Your task to perform on an android device: toggle priority inbox in the gmail app Image 0: 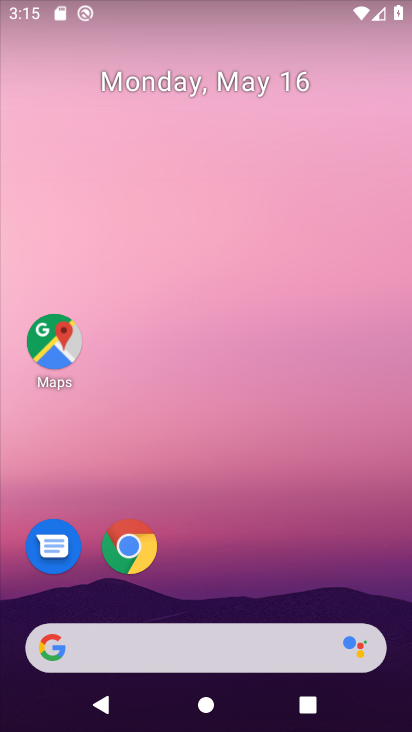
Step 0: drag from (364, 588) to (394, 202)
Your task to perform on an android device: toggle priority inbox in the gmail app Image 1: 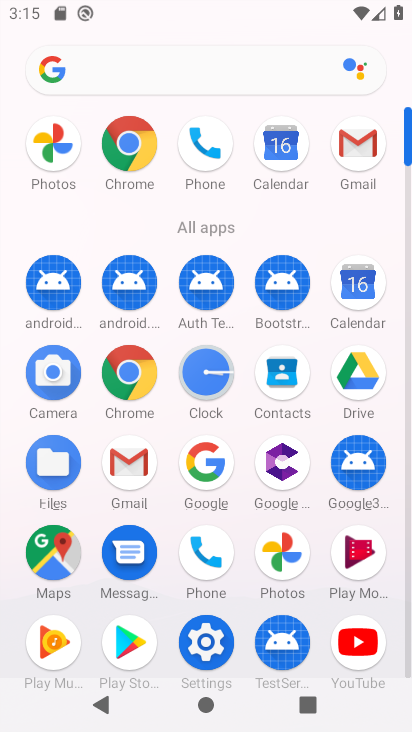
Step 1: click (374, 160)
Your task to perform on an android device: toggle priority inbox in the gmail app Image 2: 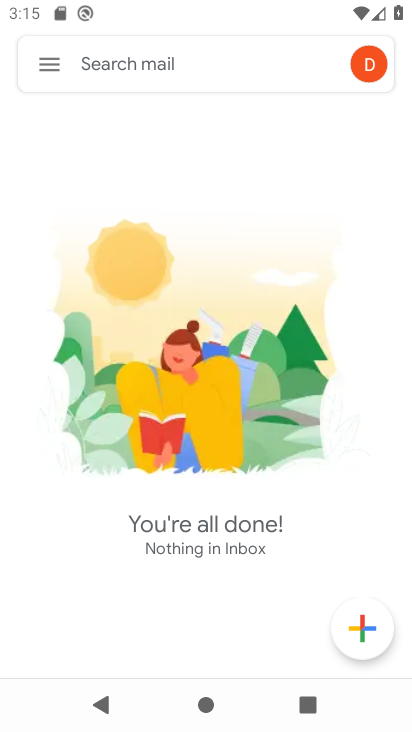
Step 2: click (55, 60)
Your task to perform on an android device: toggle priority inbox in the gmail app Image 3: 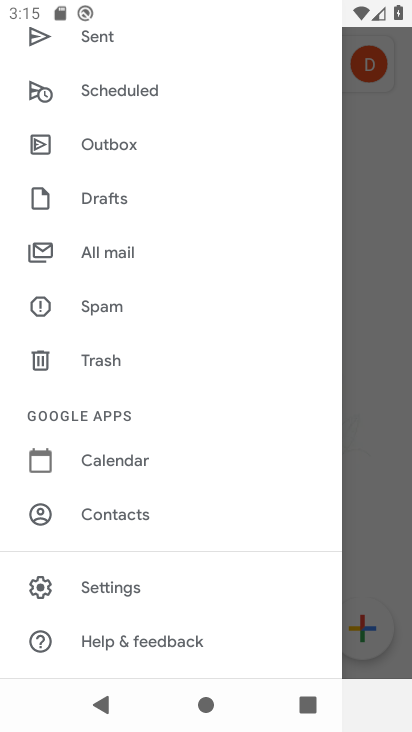
Step 3: drag from (236, 361) to (240, 451)
Your task to perform on an android device: toggle priority inbox in the gmail app Image 4: 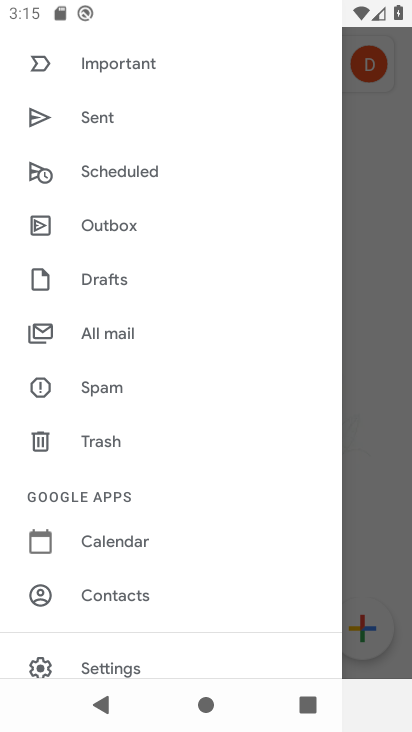
Step 4: drag from (229, 289) to (207, 433)
Your task to perform on an android device: toggle priority inbox in the gmail app Image 5: 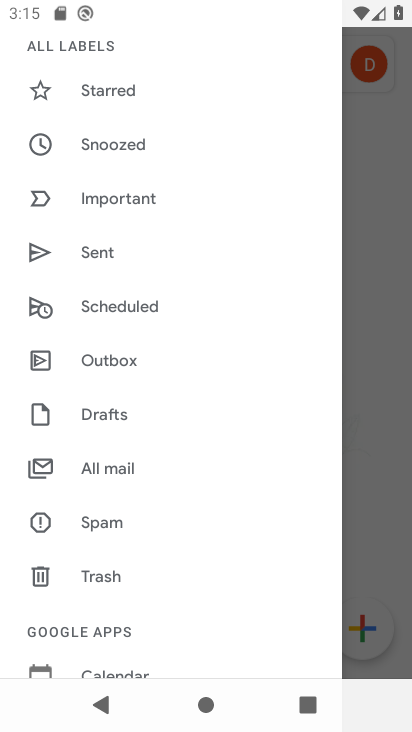
Step 5: drag from (275, 258) to (255, 411)
Your task to perform on an android device: toggle priority inbox in the gmail app Image 6: 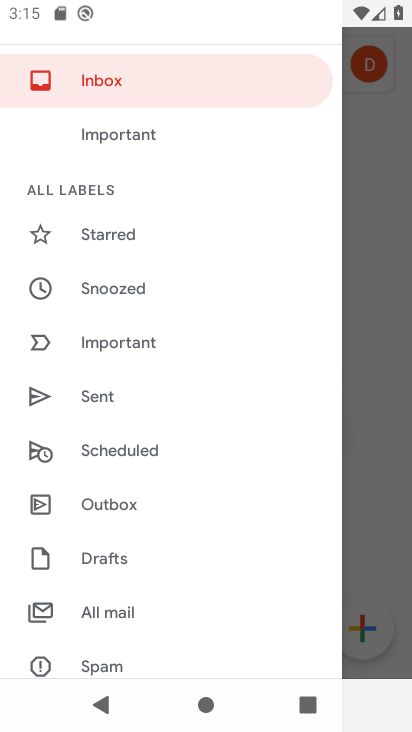
Step 6: drag from (245, 568) to (251, 422)
Your task to perform on an android device: toggle priority inbox in the gmail app Image 7: 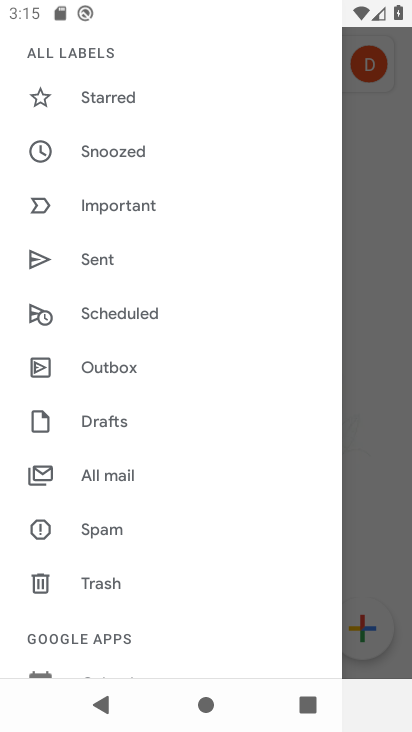
Step 7: drag from (236, 629) to (227, 464)
Your task to perform on an android device: toggle priority inbox in the gmail app Image 8: 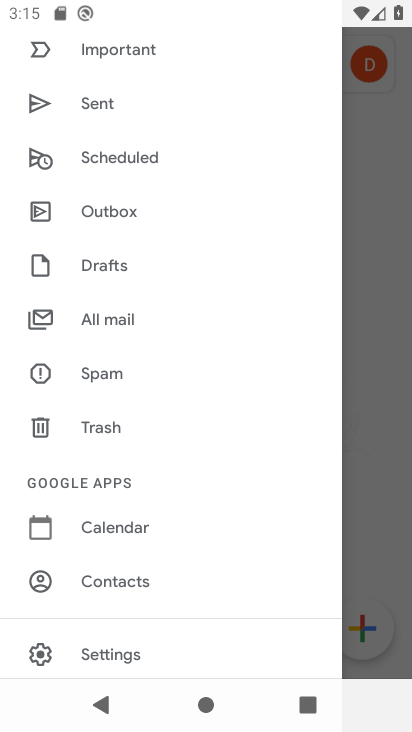
Step 8: drag from (244, 613) to (266, 471)
Your task to perform on an android device: toggle priority inbox in the gmail app Image 9: 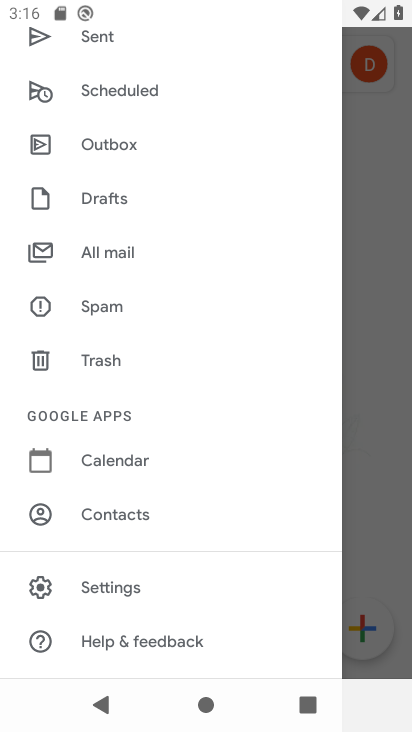
Step 9: click (148, 594)
Your task to perform on an android device: toggle priority inbox in the gmail app Image 10: 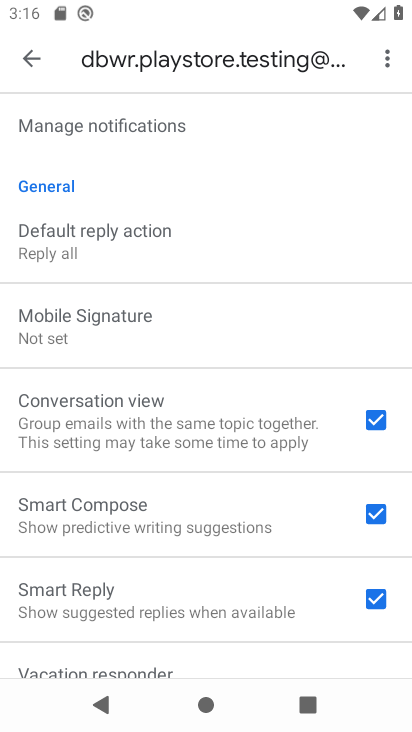
Step 10: drag from (265, 650) to (314, 499)
Your task to perform on an android device: toggle priority inbox in the gmail app Image 11: 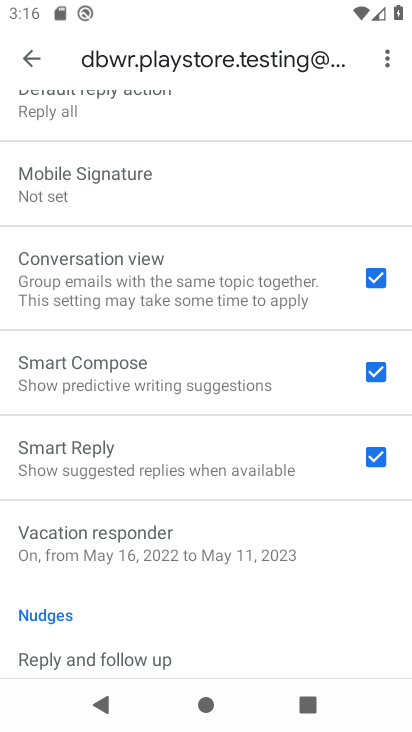
Step 11: drag from (287, 651) to (294, 497)
Your task to perform on an android device: toggle priority inbox in the gmail app Image 12: 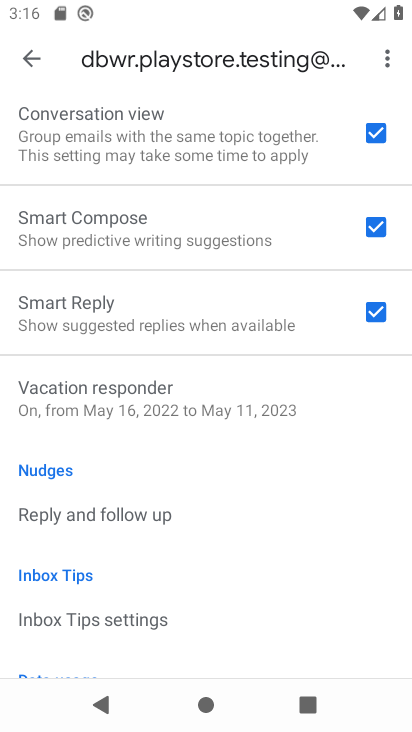
Step 12: drag from (290, 640) to (298, 501)
Your task to perform on an android device: toggle priority inbox in the gmail app Image 13: 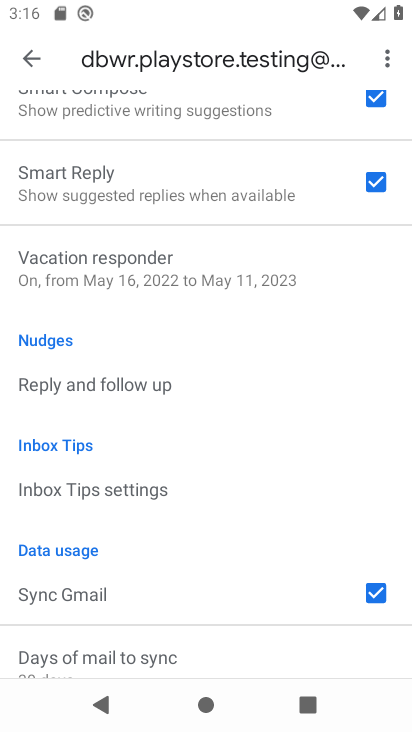
Step 13: drag from (252, 611) to (245, 338)
Your task to perform on an android device: toggle priority inbox in the gmail app Image 14: 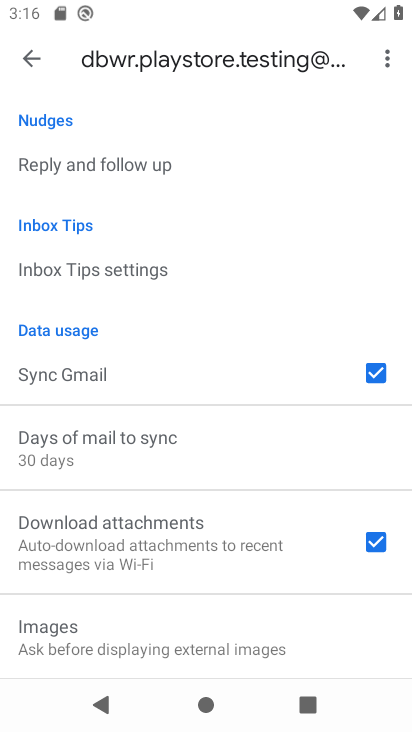
Step 14: drag from (286, 253) to (284, 373)
Your task to perform on an android device: toggle priority inbox in the gmail app Image 15: 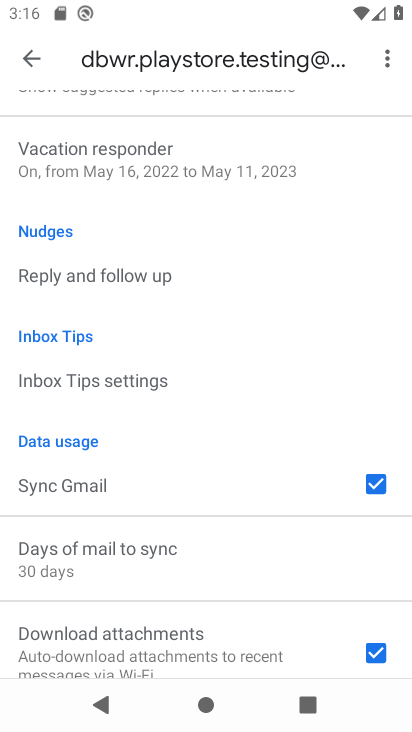
Step 15: drag from (278, 216) to (287, 352)
Your task to perform on an android device: toggle priority inbox in the gmail app Image 16: 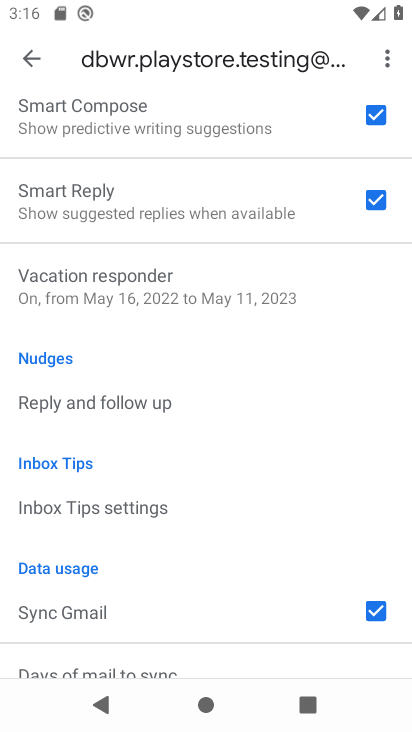
Step 16: drag from (305, 143) to (303, 295)
Your task to perform on an android device: toggle priority inbox in the gmail app Image 17: 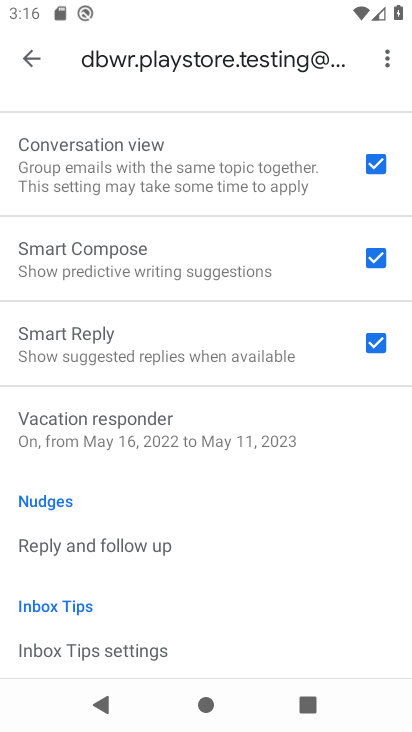
Step 17: drag from (332, 139) to (316, 321)
Your task to perform on an android device: toggle priority inbox in the gmail app Image 18: 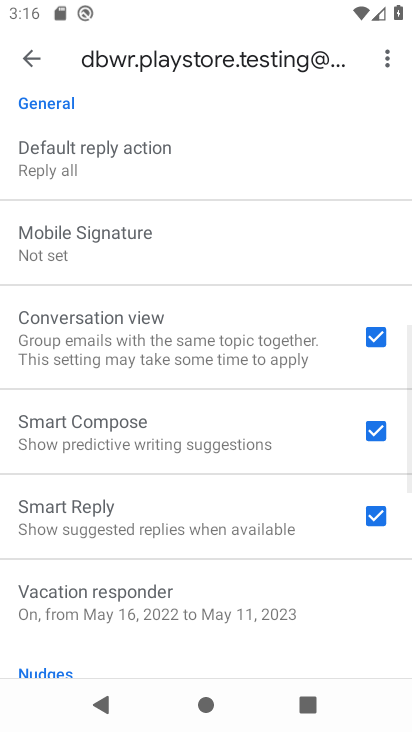
Step 18: drag from (306, 200) to (282, 382)
Your task to perform on an android device: toggle priority inbox in the gmail app Image 19: 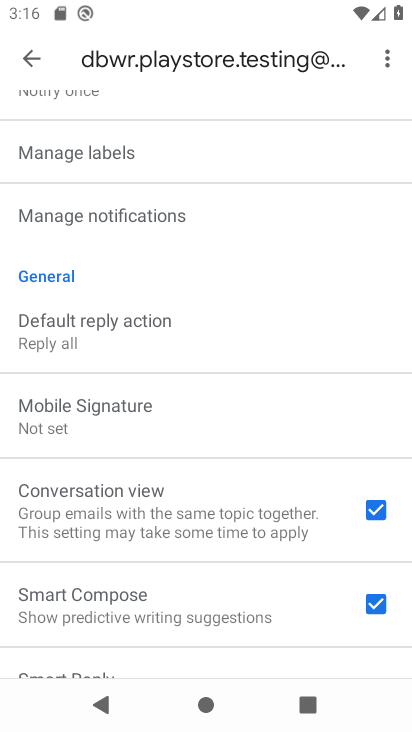
Step 19: drag from (295, 161) to (280, 374)
Your task to perform on an android device: toggle priority inbox in the gmail app Image 20: 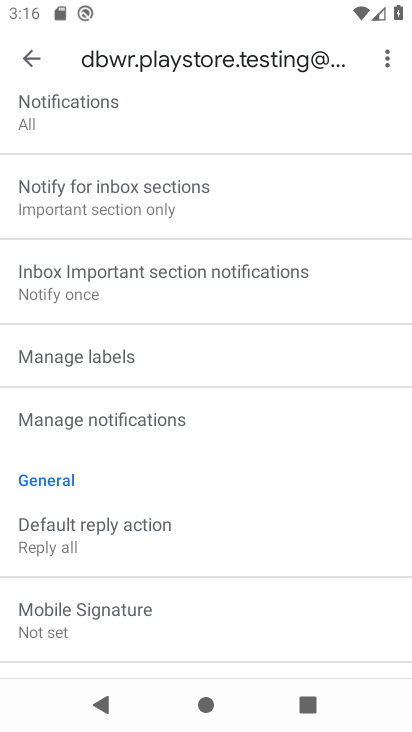
Step 20: drag from (289, 137) to (250, 344)
Your task to perform on an android device: toggle priority inbox in the gmail app Image 21: 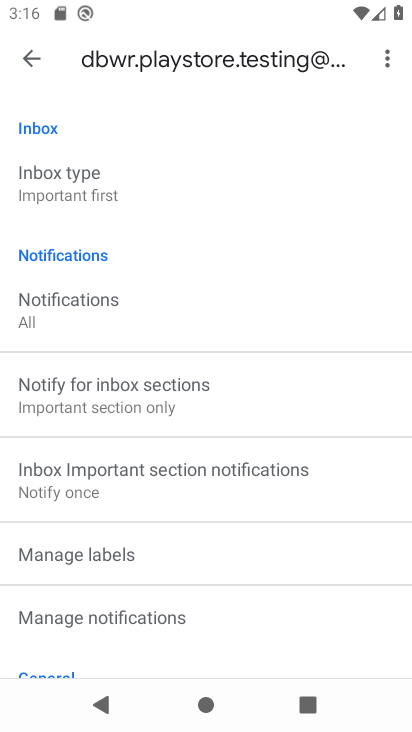
Step 21: click (89, 185)
Your task to perform on an android device: toggle priority inbox in the gmail app Image 22: 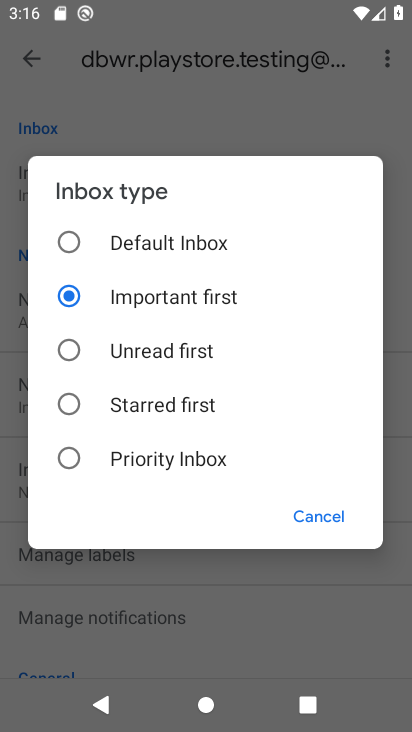
Step 22: click (213, 464)
Your task to perform on an android device: toggle priority inbox in the gmail app Image 23: 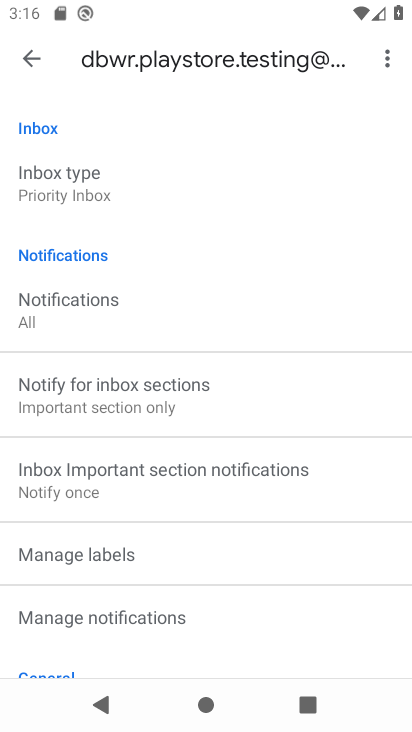
Step 23: task complete